Your task to perform on an android device: Open wifi settings Image 0: 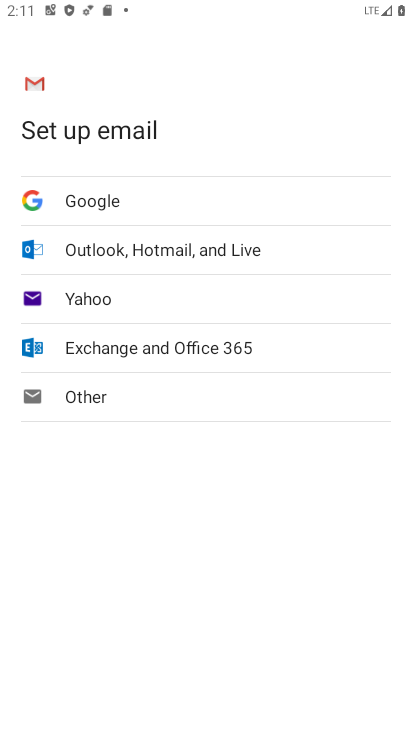
Step 0: press home button
Your task to perform on an android device: Open wifi settings Image 1: 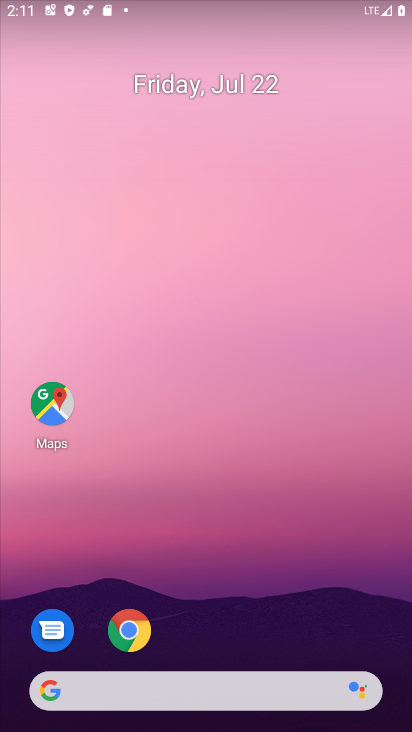
Step 1: drag from (214, 656) to (207, 20)
Your task to perform on an android device: Open wifi settings Image 2: 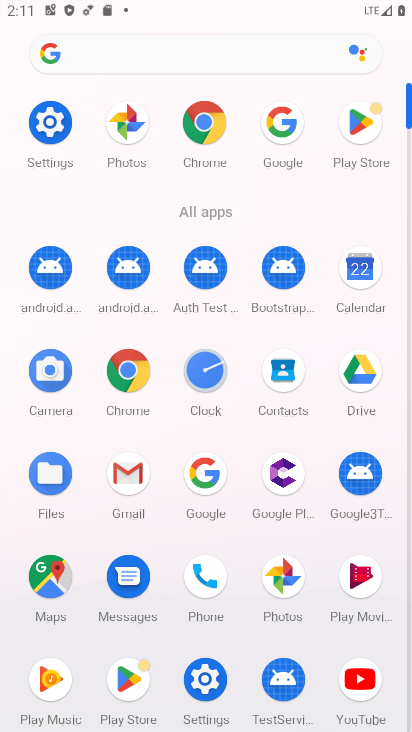
Step 2: click (38, 104)
Your task to perform on an android device: Open wifi settings Image 3: 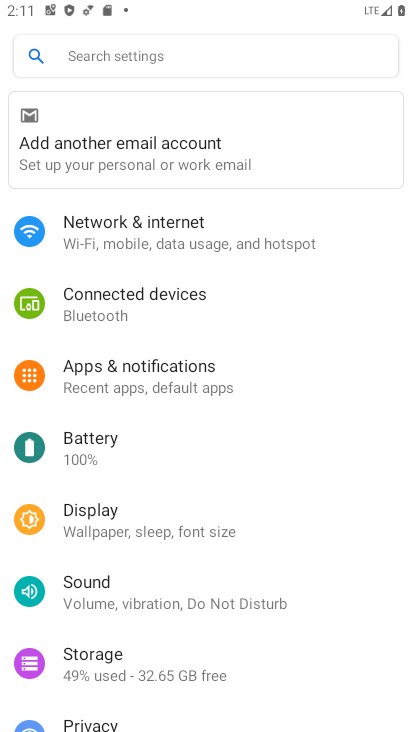
Step 3: click (151, 241)
Your task to perform on an android device: Open wifi settings Image 4: 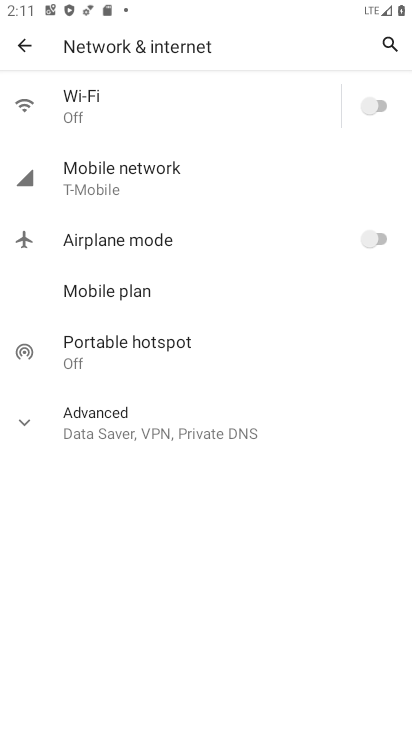
Step 4: click (121, 119)
Your task to perform on an android device: Open wifi settings Image 5: 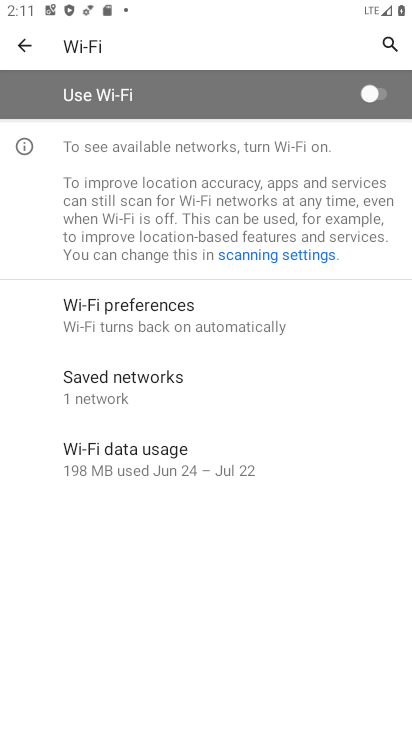
Step 5: task complete